Your task to perform on an android device: turn smart compose on in the gmail app Image 0: 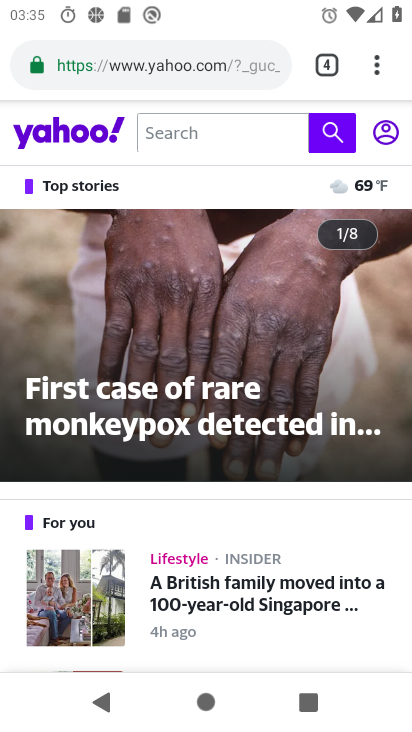
Step 0: press back button
Your task to perform on an android device: turn smart compose on in the gmail app Image 1: 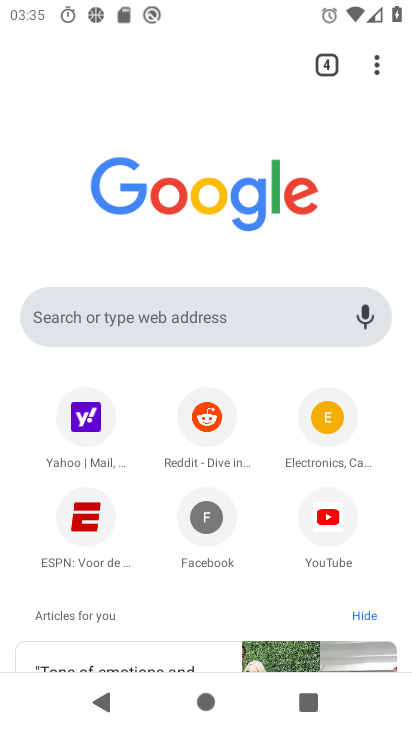
Step 1: press back button
Your task to perform on an android device: turn smart compose on in the gmail app Image 2: 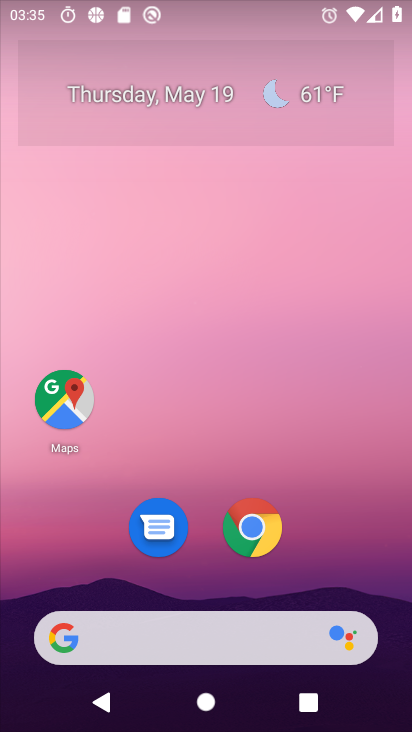
Step 2: drag from (217, 573) to (290, 70)
Your task to perform on an android device: turn smart compose on in the gmail app Image 3: 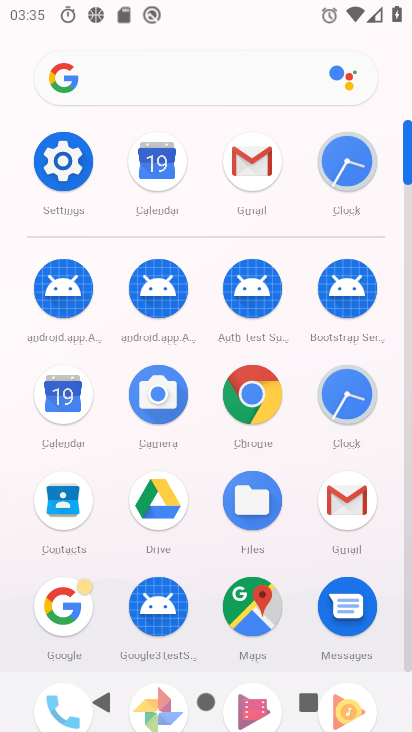
Step 3: click (249, 129)
Your task to perform on an android device: turn smart compose on in the gmail app Image 4: 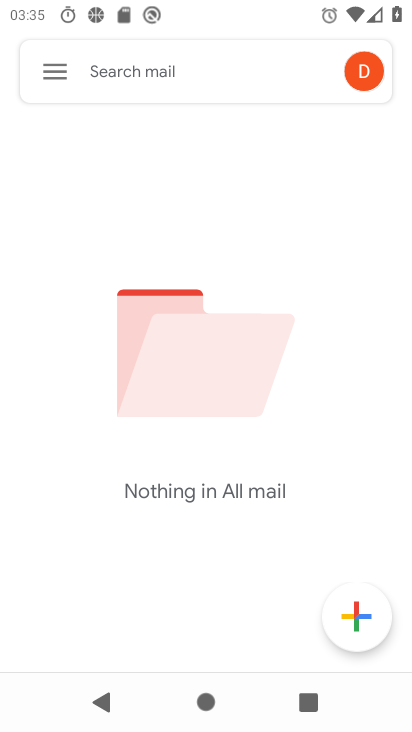
Step 4: click (53, 63)
Your task to perform on an android device: turn smart compose on in the gmail app Image 5: 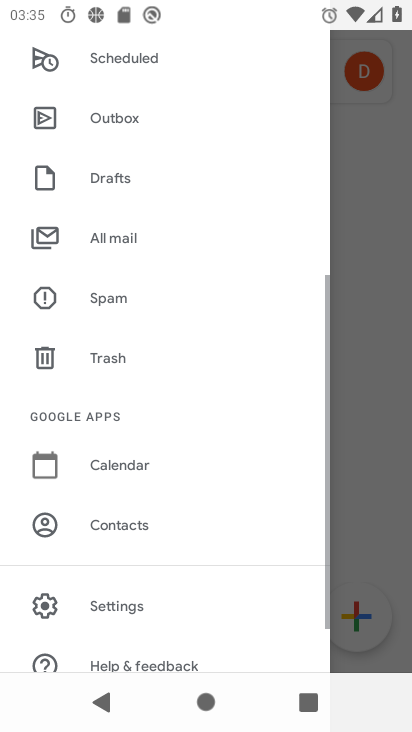
Step 5: click (106, 606)
Your task to perform on an android device: turn smart compose on in the gmail app Image 6: 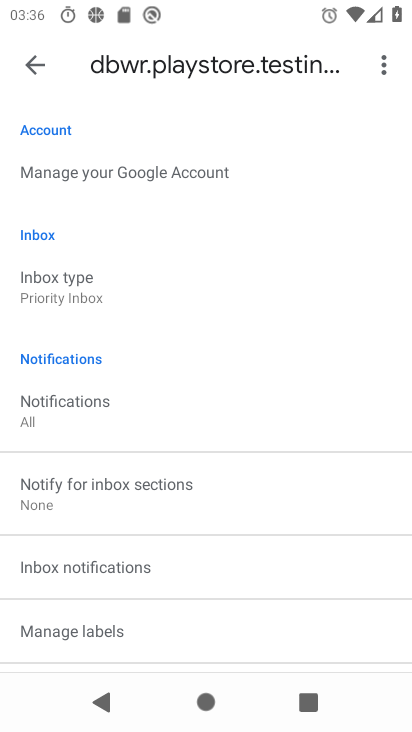
Step 6: task complete